Your task to perform on an android device: check storage Image 0: 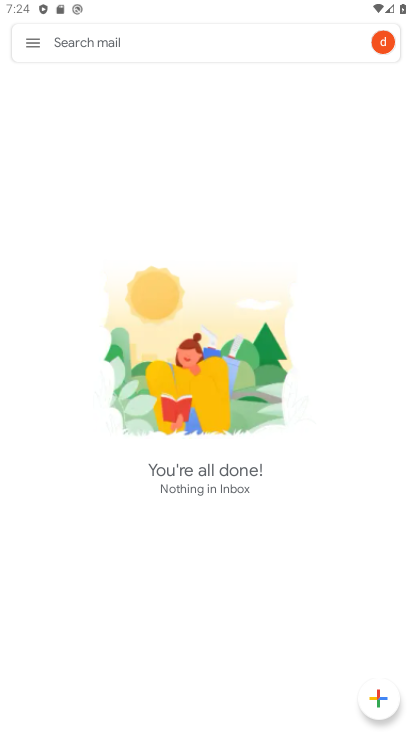
Step 0: press home button
Your task to perform on an android device: check storage Image 1: 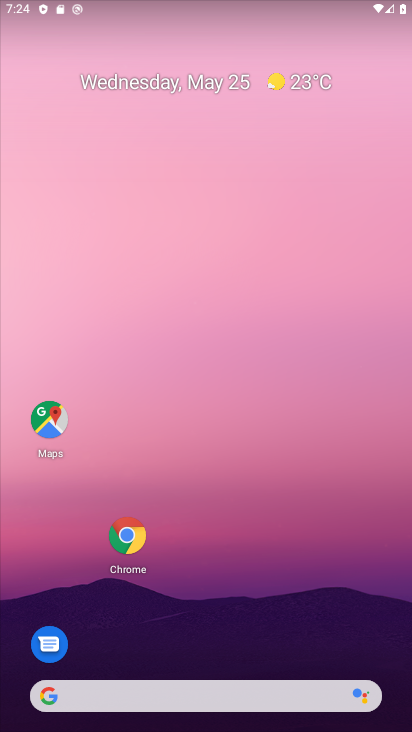
Step 1: drag from (204, 716) to (292, 176)
Your task to perform on an android device: check storage Image 2: 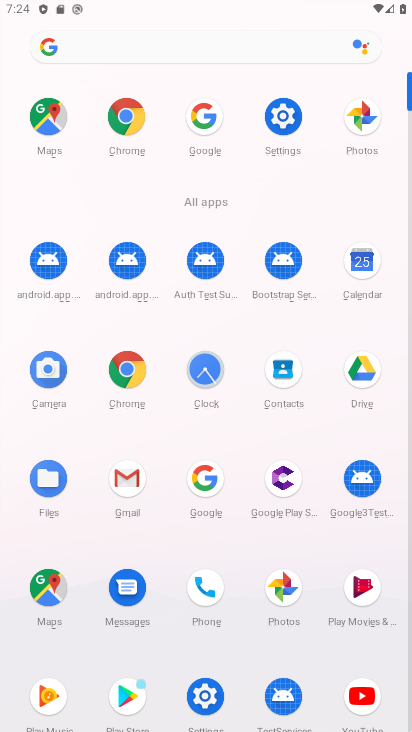
Step 2: click (289, 111)
Your task to perform on an android device: check storage Image 3: 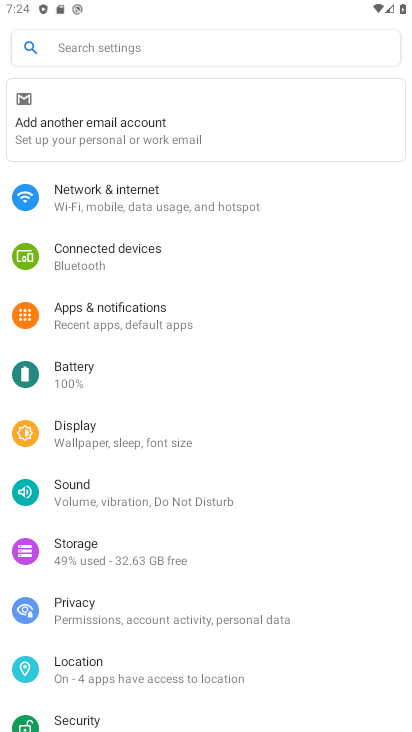
Step 3: click (111, 544)
Your task to perform on an android device: check storage Image 4: 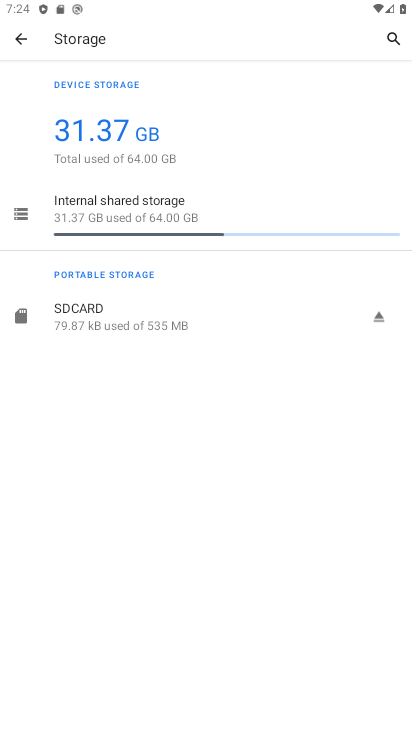
Step 4: click (112, 230)
Your task to perform on an android device: check storage Image 5: 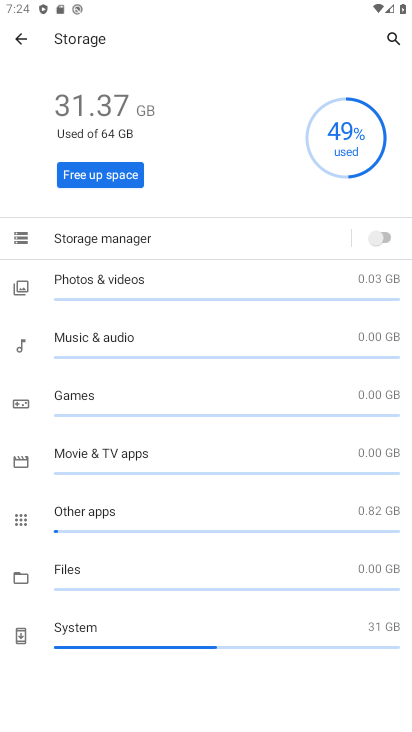
Step 5: task complete